Your task to perform on an android device: Open display settings Image 0: 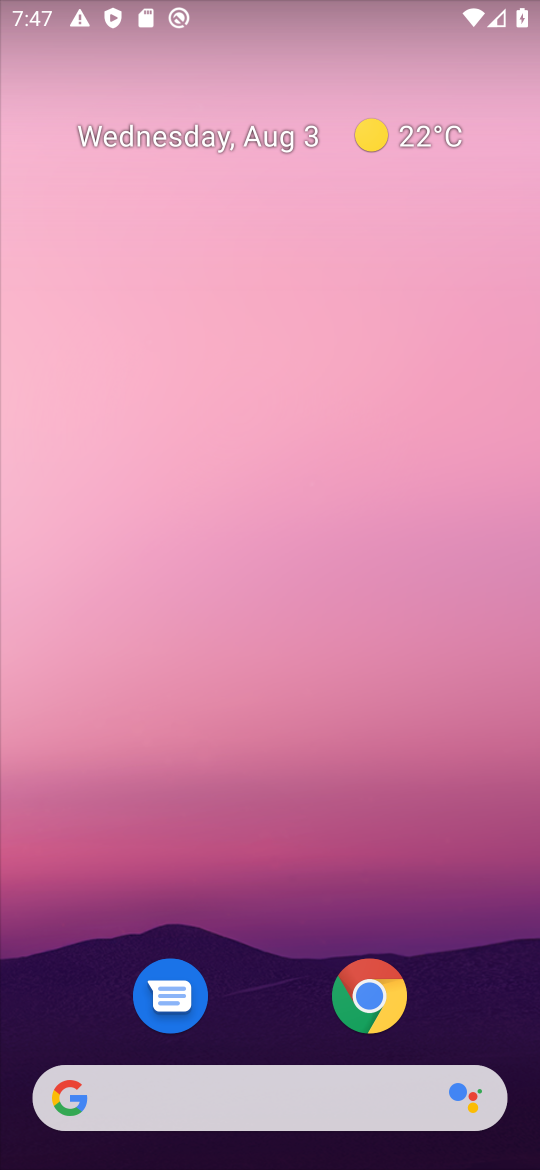
Step 0: drag from (272, 880) to (288, 28)
Your task to perform on an android device: Open display settings Image 1: 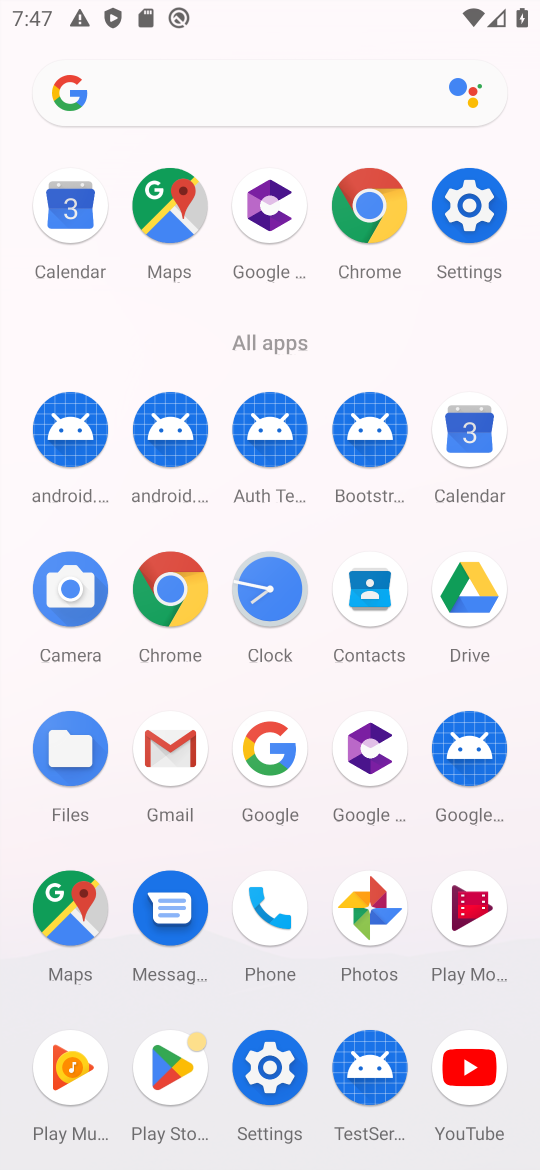
Step 1: click (457, 199)
Your task to perform on an android device: Open display settings Image 2: 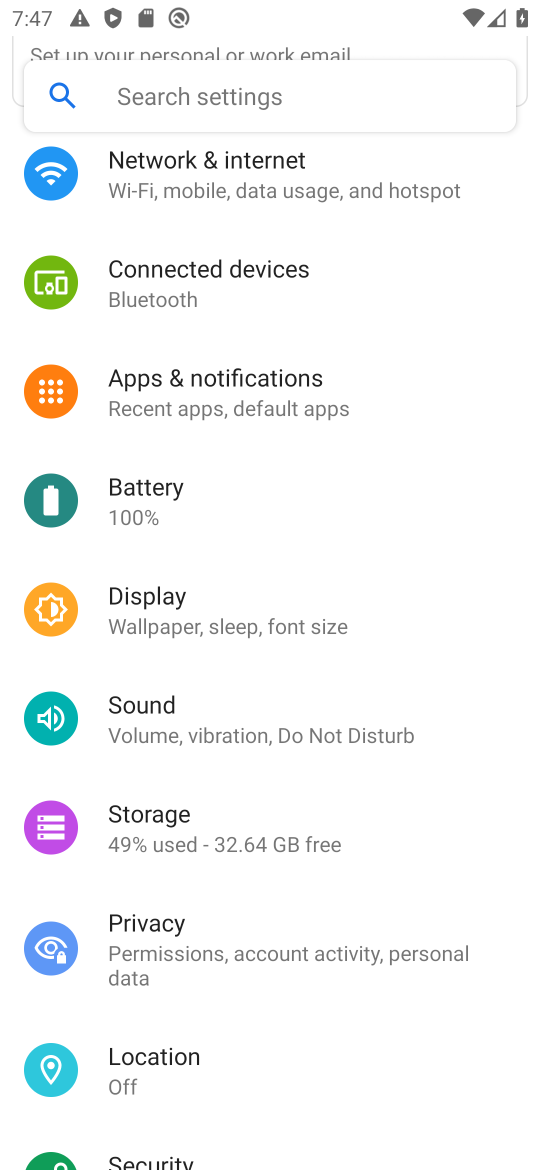
Step 2: click (161, 631)
Your task to perform on an android device: Open display settings Image 3: 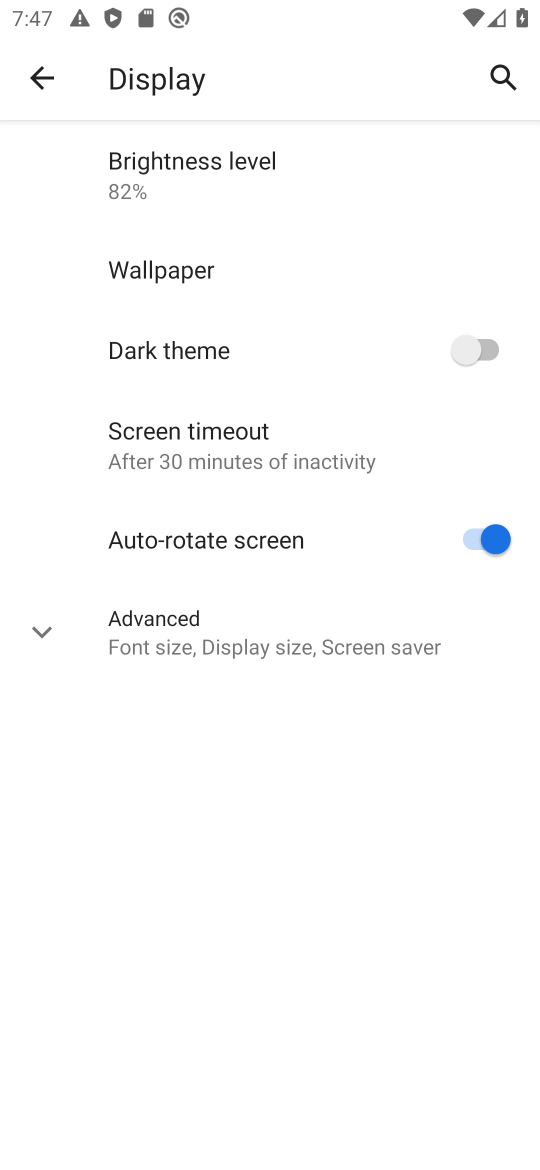
Step 3: task complete